Your task to perform on an android device: turn on bluetooth scan Image 0: 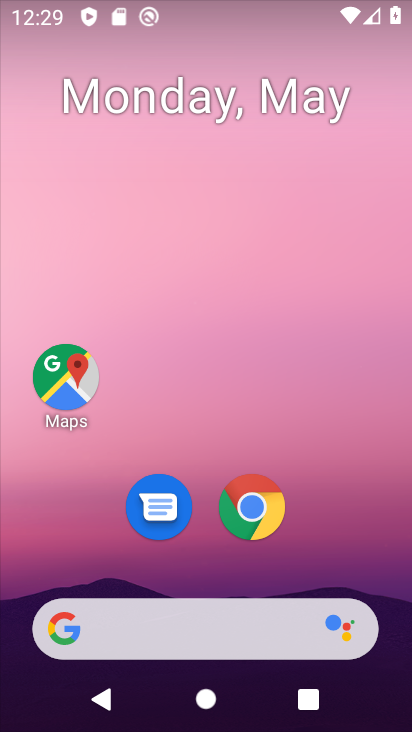
Step 0: drag from (225, 724) to (187, 91)
Your task to perform on an android device: turn on bluetooth scan Image 1: 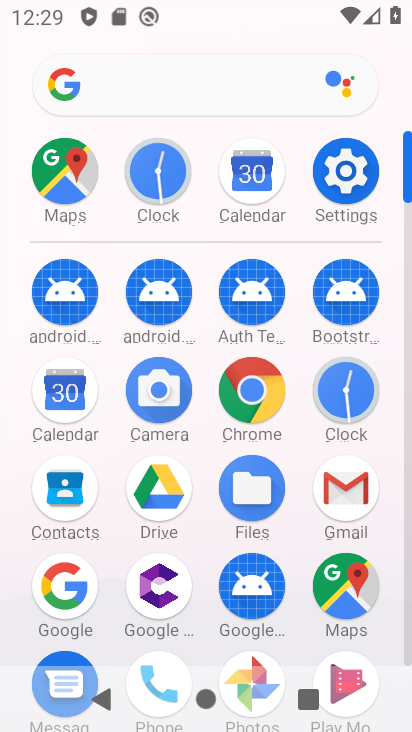
Step 1: click (352, 163)
Your task to perform on an android device: turn on bluetooth scan Image 2: 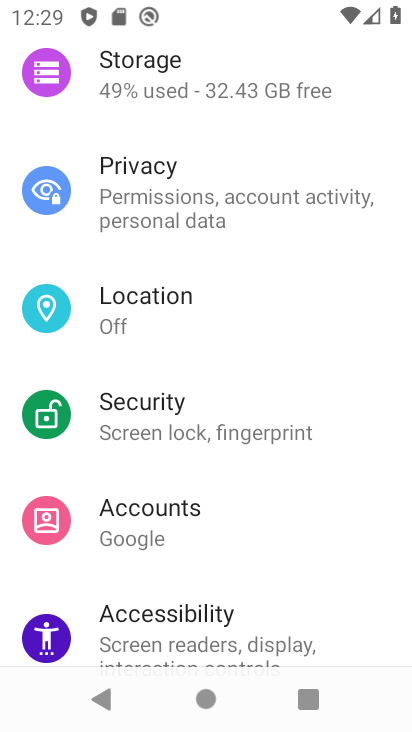
Step 2: drag from (151, 142) to (177, 597)
Your task to perform on an android device: turn on bluetooth scan Image 3: 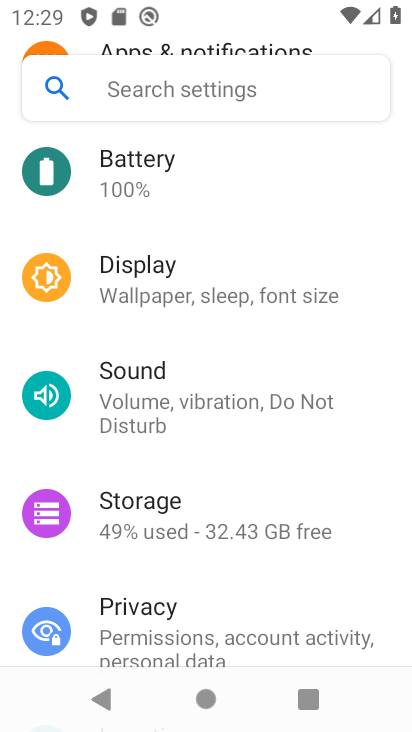
Step 3: drag from (173, 627) to (178, 254)
Your task to perform on an android device: turn on bluetooth scan Image 4: 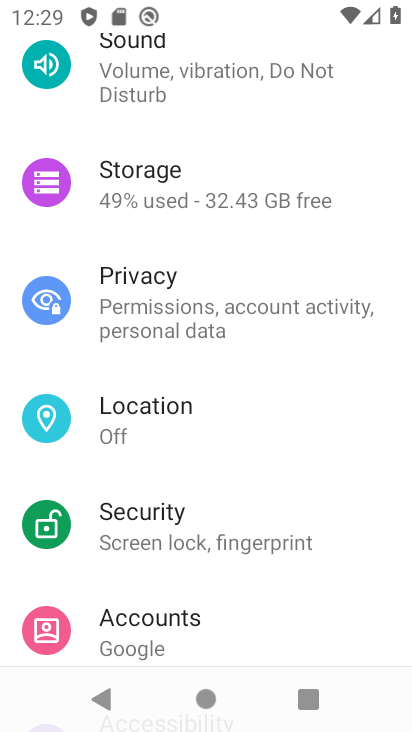
Step 4: click (132, 395)
Your task to perform on an android device: turn on bluetooth scan Image 5: 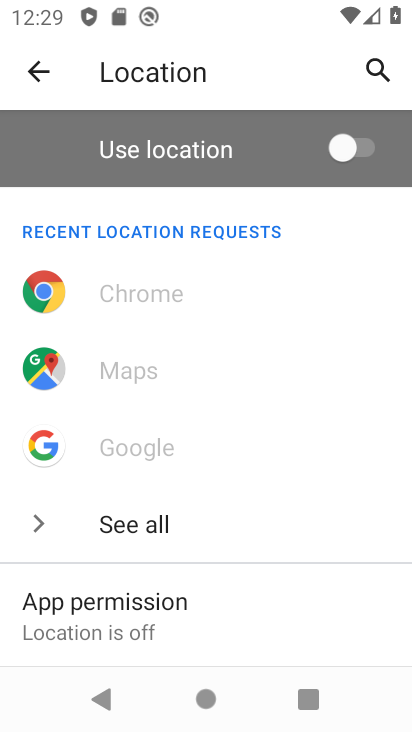
Step 5: drag from (198, 653) to (237, 318)
Your task to perform on an android device: turn on bluetooth scan Image 6: 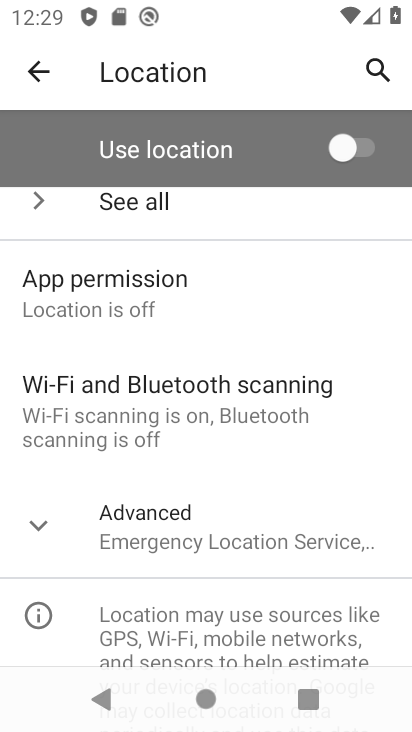
Step 6: click (182, 399)
Your task to perform on an android device: turn on bluetooth scan Image 7: 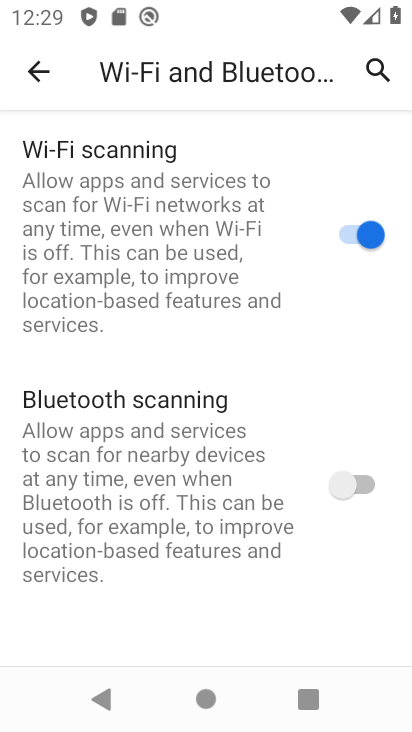
Step 7: click (366, 484)
Your task to perform on an android device: turn on bluetooth scan Image 8: 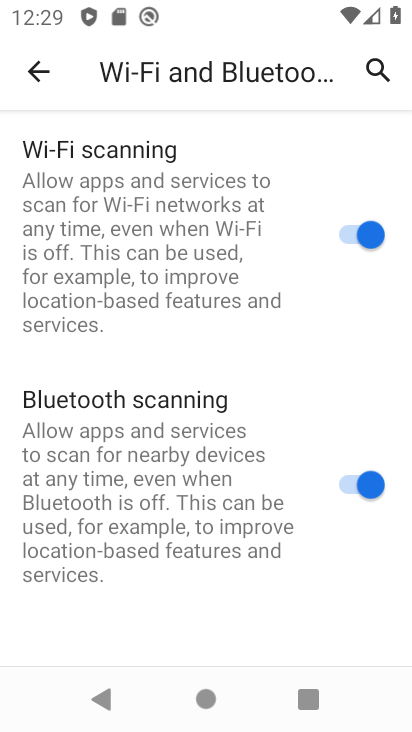
Step 8: task complete